Your task to perform on an android device: allow cookies in the chrome app Image 0: 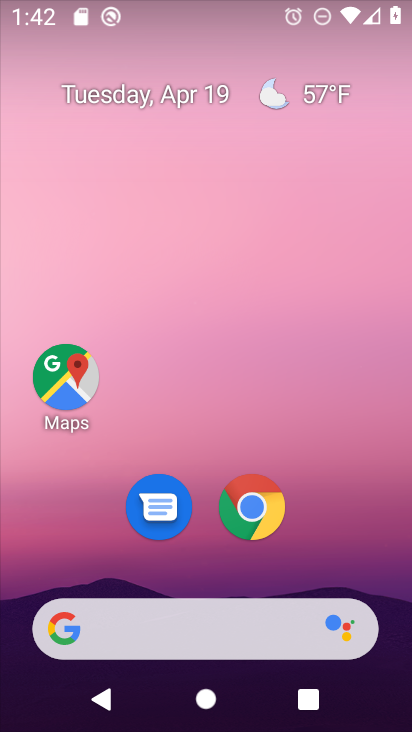
Step 0: click (81, 364)
Your task to perform on an android device: allow cookies in the chrome app Image 1: 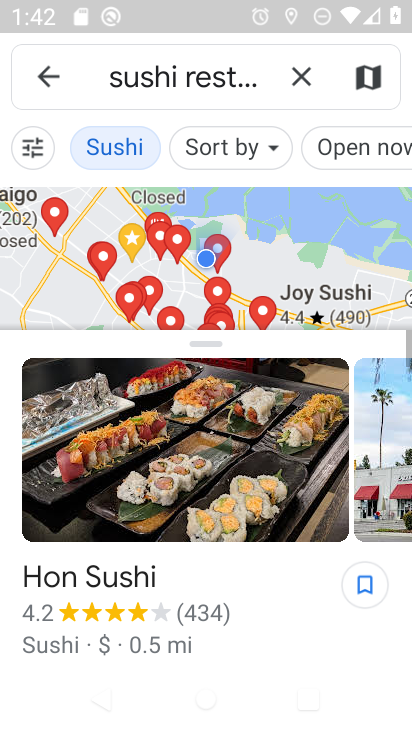
Step 1: task complete